Your task to perform on an android device: set an alarm Image 0: 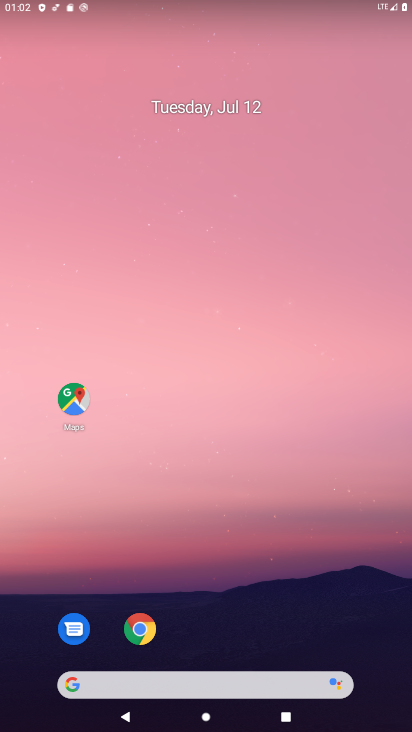
Step 0: drag from (31, 706) to (241, 58)
Your task to perform on an android device: set an alarm Image 1: 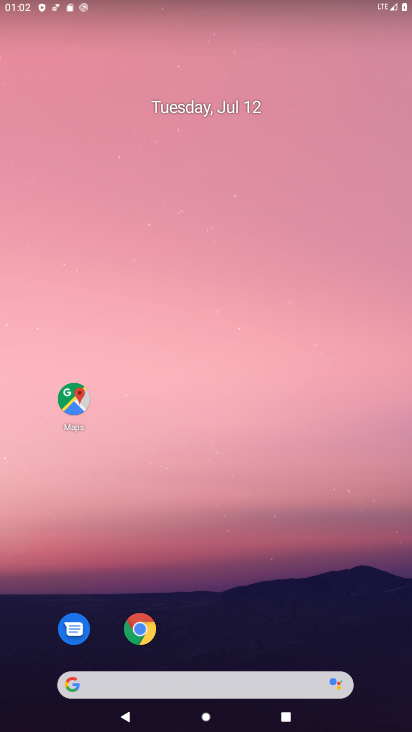
Step 1: drag from (33, 703) to (289, 102)
Your task to perform on an android device: set an alarm Image 2: 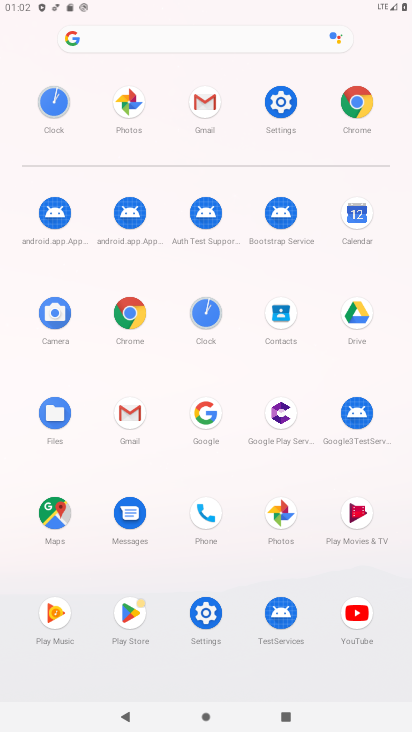
Step 2: click (203, 309)
Your task to perform on an android device: set an alarm Image 3: 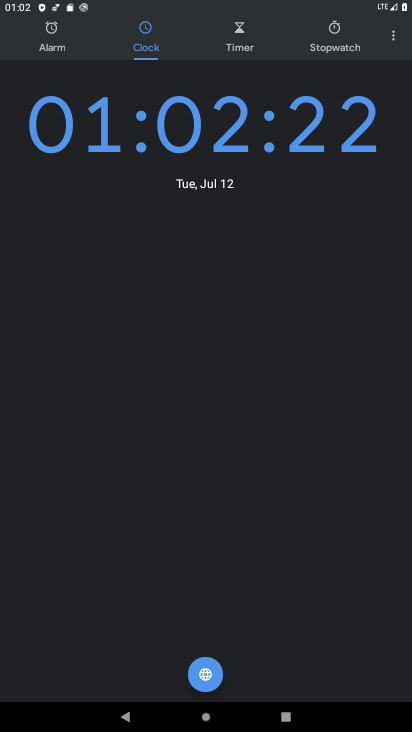
Step 3: click (46, 41)
Your task to perform on an android device: set an alarm Image 4: 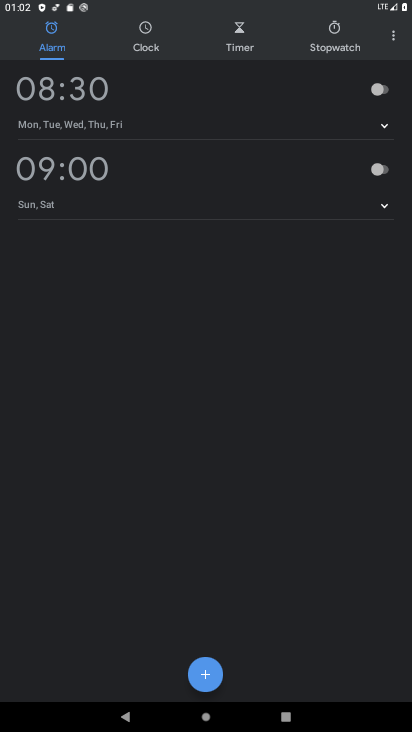
Step 4: click (372, 96)
Your task to perform on an android device: set an alarm Image 5: 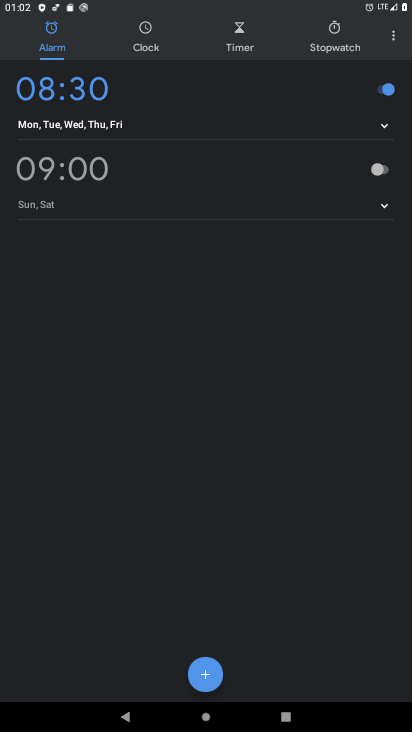
Step 5: task complete